Your task to perform on an android device: add a contact in the contacts app Image 0: 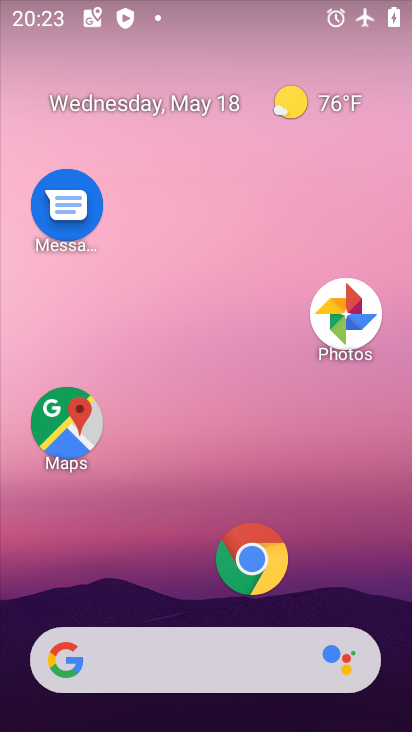
Step 0: drag from (221, 608) to (136, 57)
Your task to perform on an android device: add a contact in the contacts app Image 1: 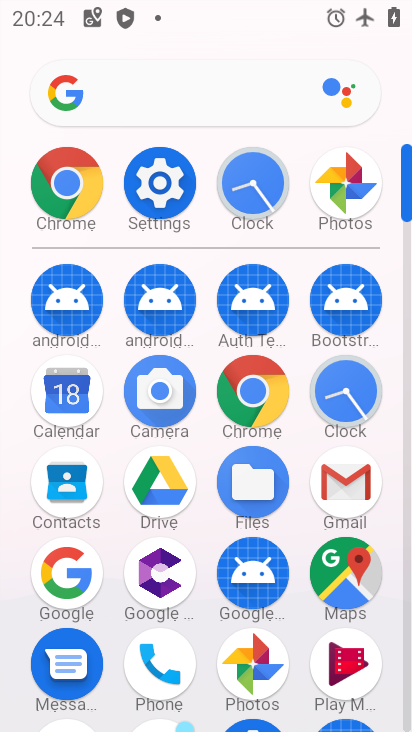
Step 1: click (148, 661)
Your task to perform on an android device: add a contact in the contacts app Image 2: 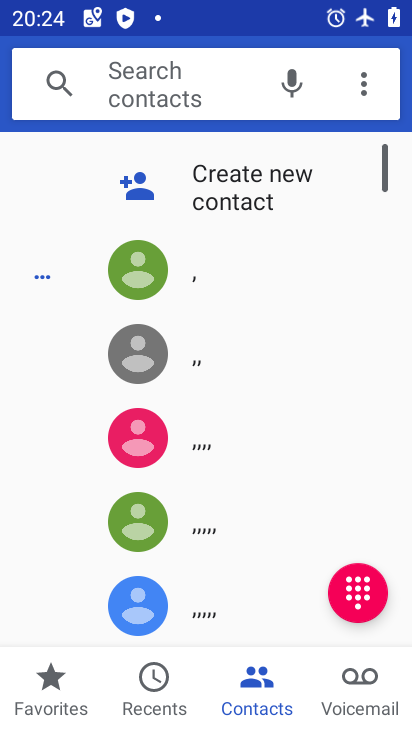
Step 2: click (226, 170)
Your task to perform on an android device: add a contact in the contacts app Image 3: 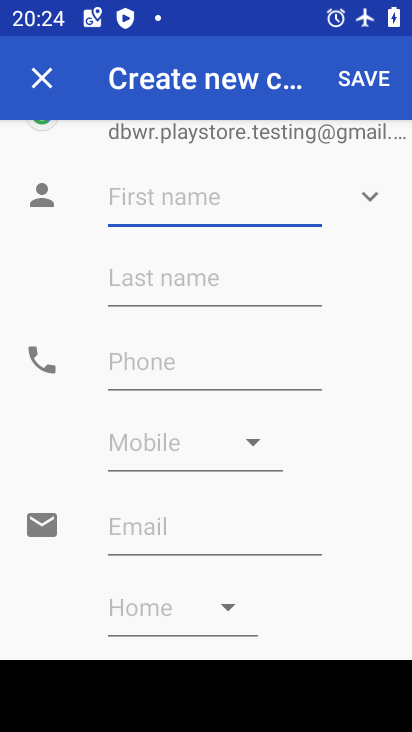
Step 3: type "eff"
Your task to perform on an android device: add a contact in the contacts app Image 4: 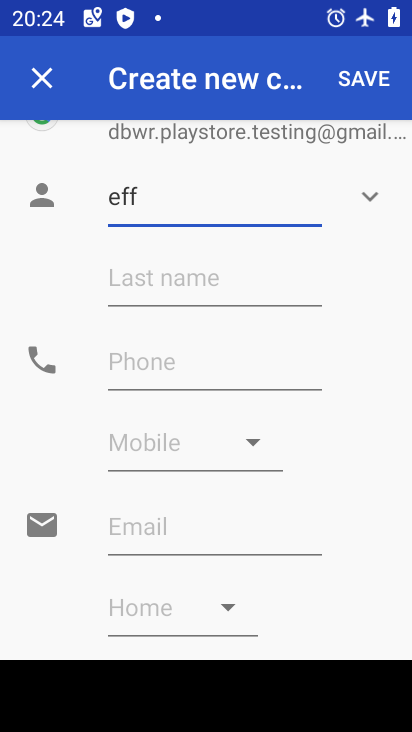
Step 4: click (211, 385)
Your task to perform on an android device: add a contact in the contacts app Image 5: 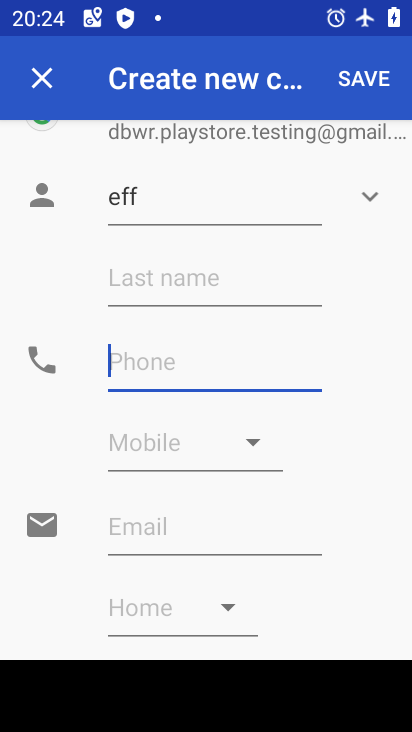
Step 5: type "434"
Your task to perform on an android device: add a contact in the contacts app Image 6: 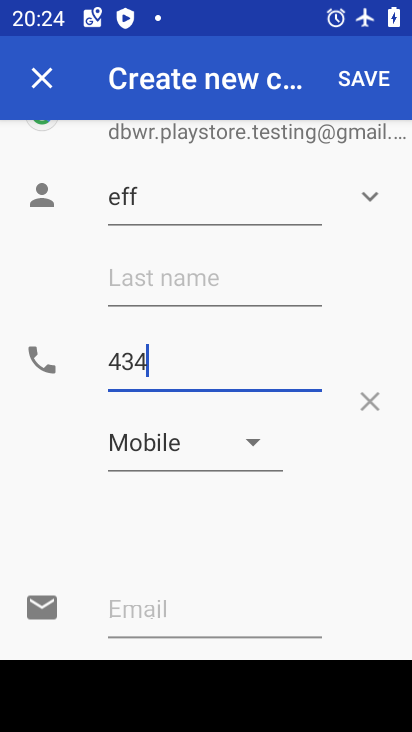
Step 6: type ""
Your task to perform on an android device: add a contact in the contacts app Image 7: 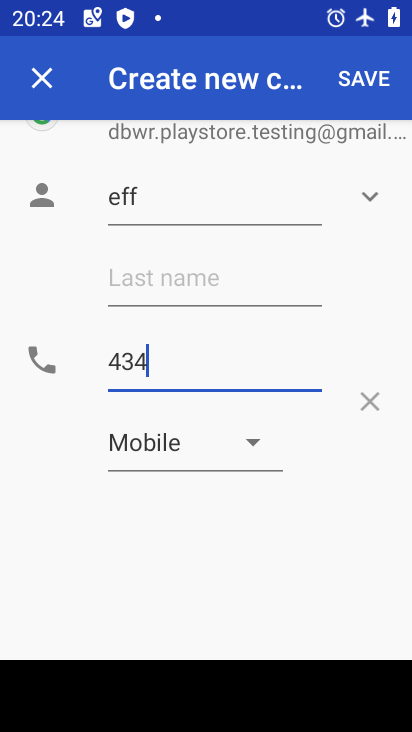
Step 7: click (368, 70)
Your task to perform on an android device: add a contact in the contacts app Image 8: 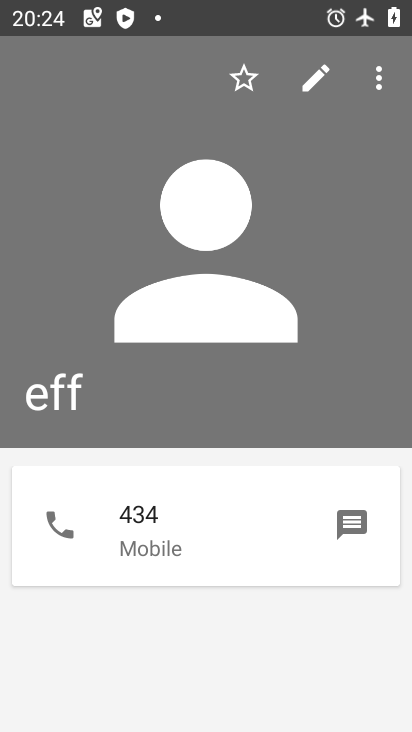
Step 8: task complete